Your task to perform on an android device: toggle improve location accuracy Image 0: 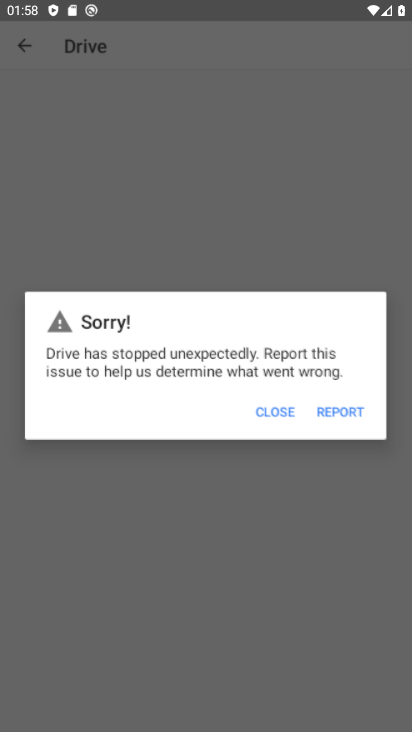
Step 0: click (123, 631)
Your task to perform on an android device: toggle improve location accuracy Image 1: 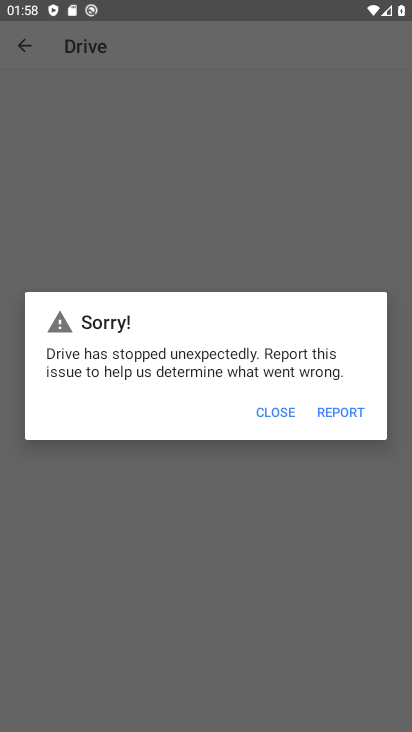
Step 1: press home button
Your task to perform on an android device: toggle improve location accuracy Image 2: 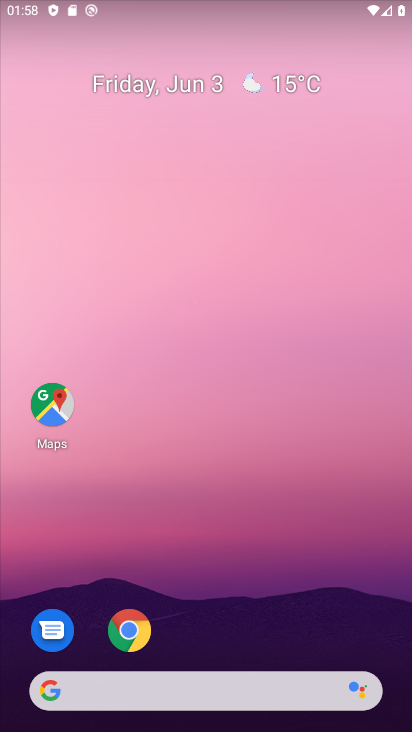
Step 2: drag from (397, 660) to (303, 153)
Your task to perform on an android device: toggle improve location accuracy Image 3: 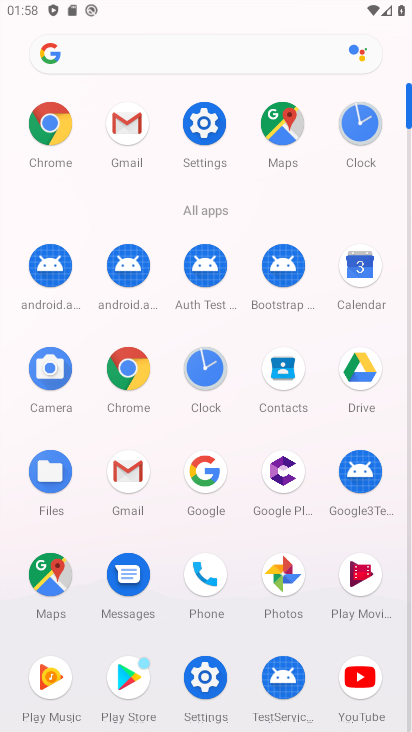
Step 3: click (196, 125)
Your task to perform on an android device: toggle improve location accuracy Image 4: 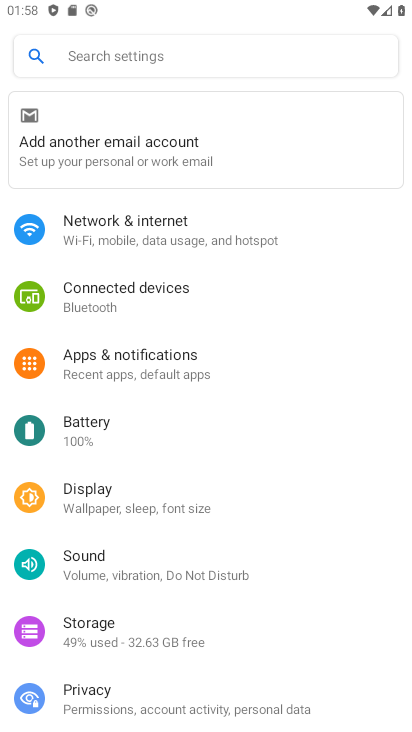
Step 4: click (102, 656)
Your task to perform on an android device: toggle improve location accuracy Image 5: 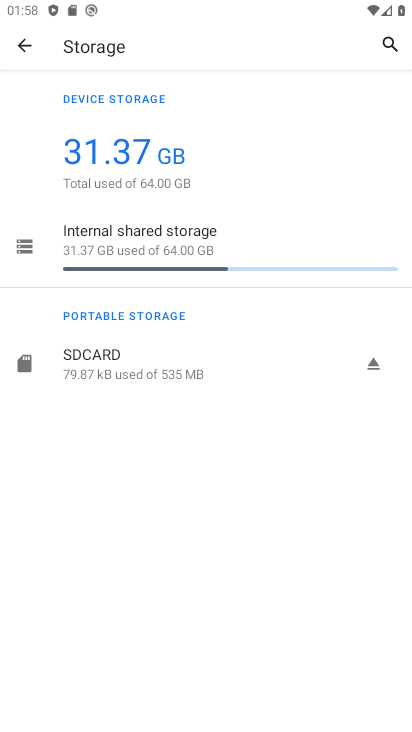
Step 5: click (26, 50)
Your task to perform on an android device: toggle improve location accuracy Image 6: 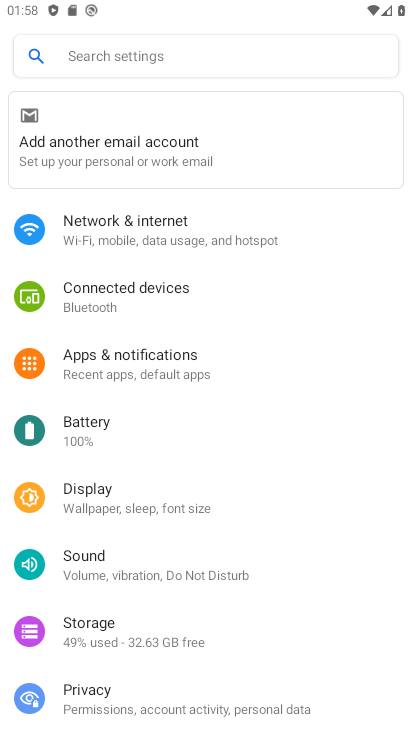
Step 6: drag from (181, 668) to (179, 356)
Your task to perform on an android device: toggle improve location accuracy Image 7: 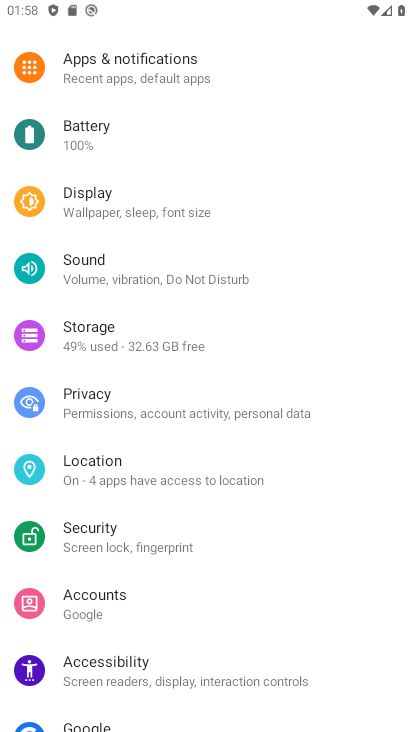
Step 7: click (103, 466)
Your task to perform on an android device: toggle improve location accuracy Image 8: 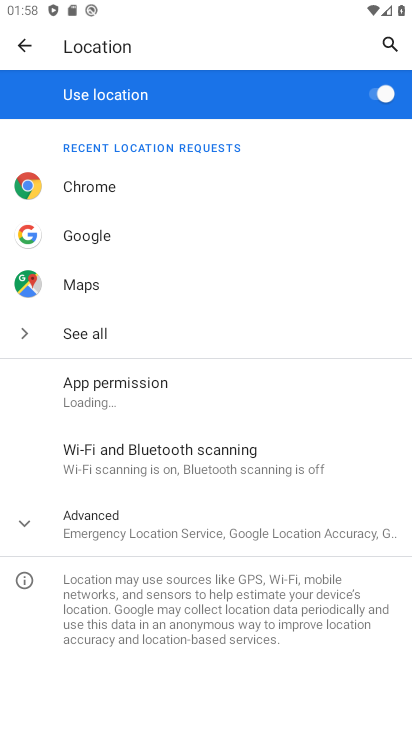
Step 8: click (20, 518)
Your task to perform on an android device: toggle improve location accuracy Image 9: 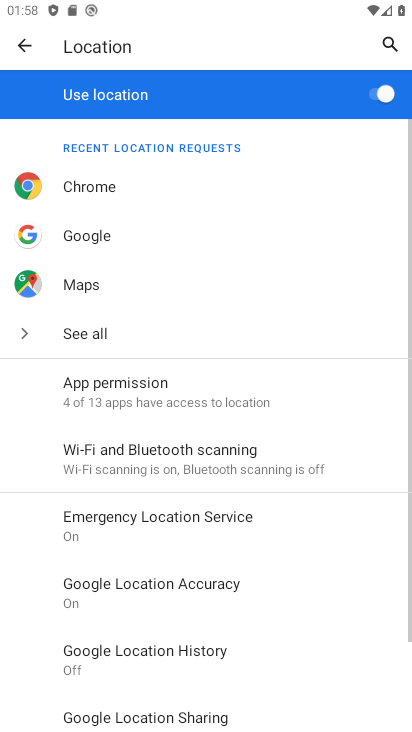
Step 9: click (153, 586)
Your task to perform on an android device: toggle improve location accuracy Image 10: 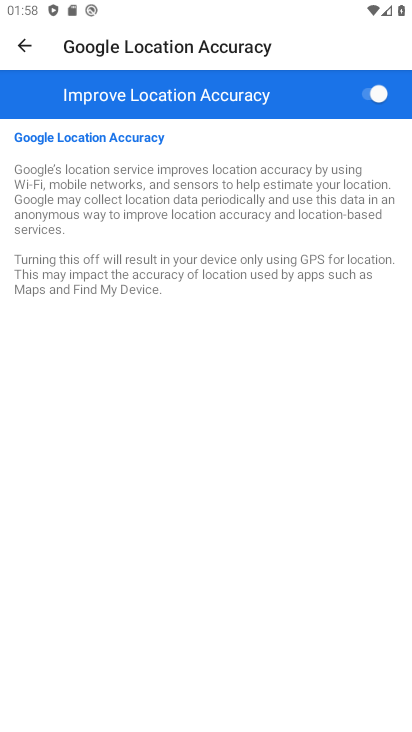
Step 10: click (366, 87)
Your task to perform on an android device: toggle improve location accuracy Image 11: 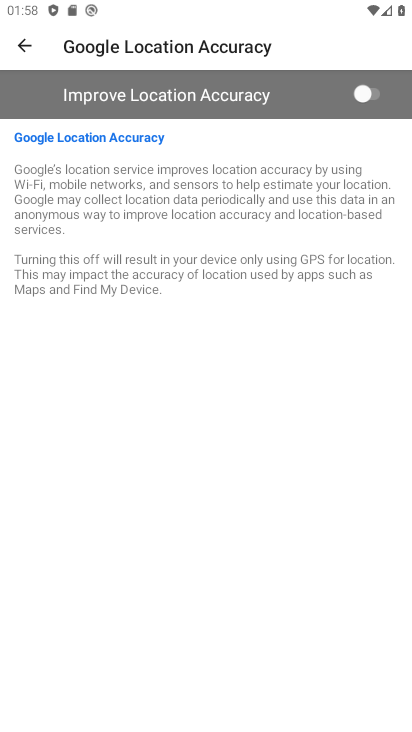
Step 11: task complete